Your task to perform on an android device: toggle wifi Image 0: 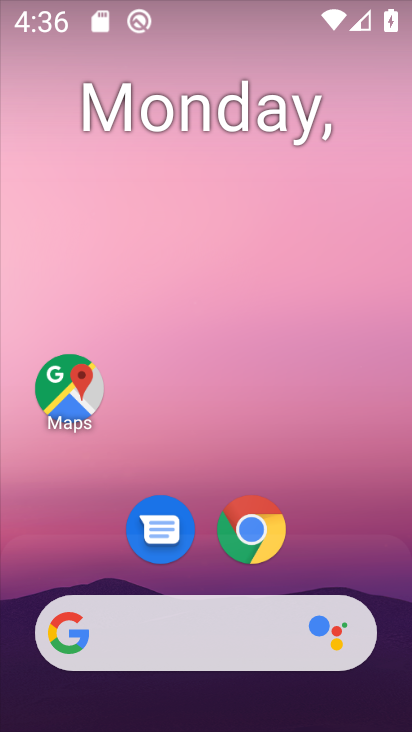
Step 0: drag from (386, 578) to (301, 0)
Your task to perform on an android device: toggle wifi Image 1: 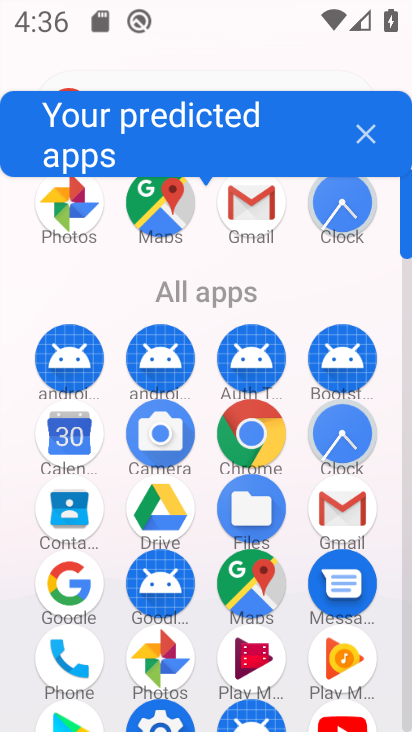
Step 1: click (407, 677)
Your task to perform on an android device: toggle wifi Image 2: 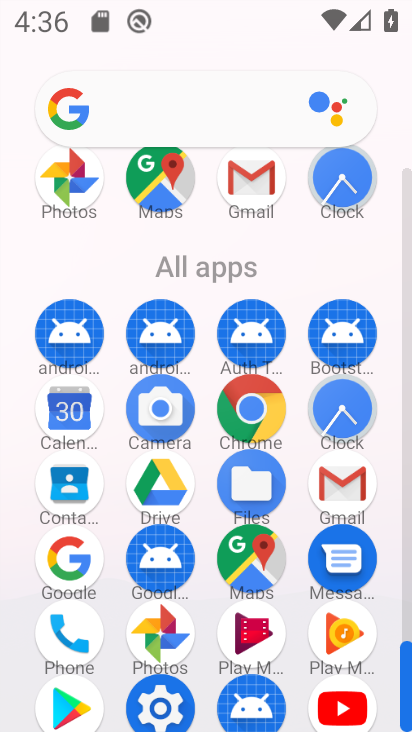
Step 2: click (173, 703)
Your task to perform on an android device: toggle wifi Image 3: 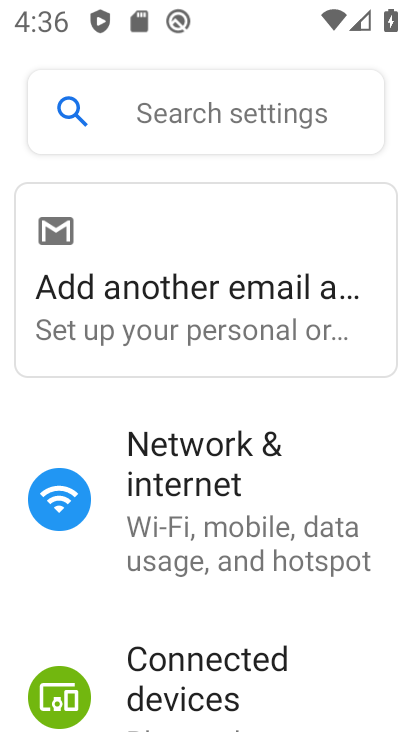
Step 3: click (283, 548)
Your task to perform on an android device: toggle wifi Image 4: 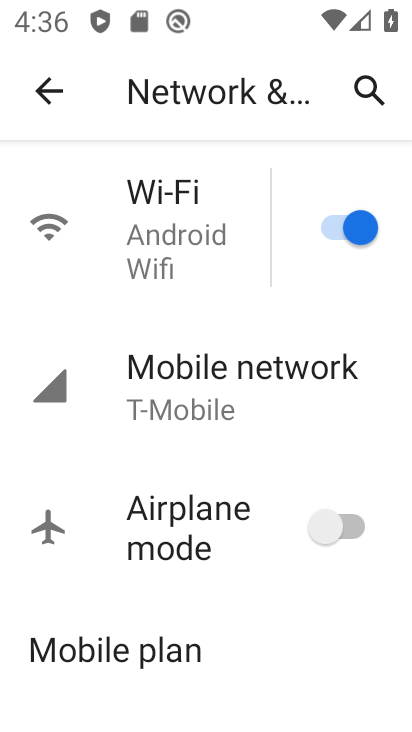
Step 4: click (342, 216)
Your task to perform on an android device: toggle wifi Image 5: 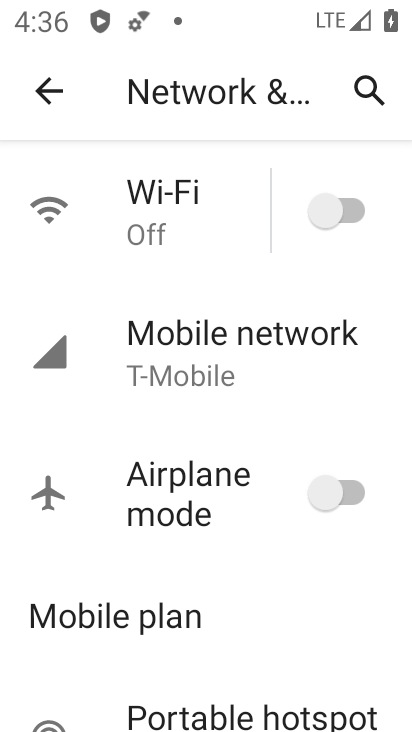
Step 5: task complete